Your task to perform on an android device: Go to Yahoo.com Image 0: 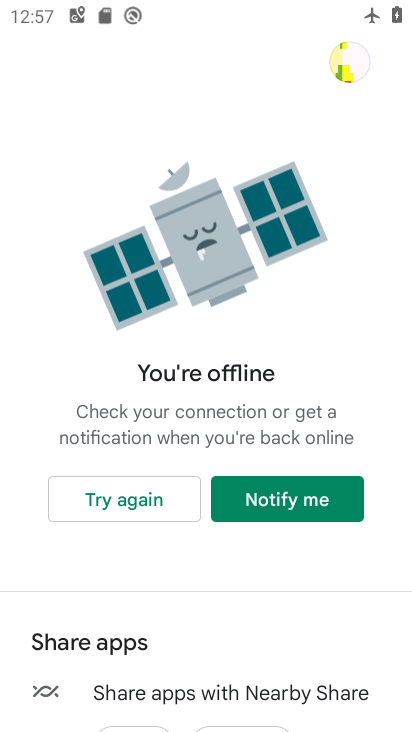
Step 0: press home button
Your task to perform on an android device: Go to Yahoo.com Image 1: 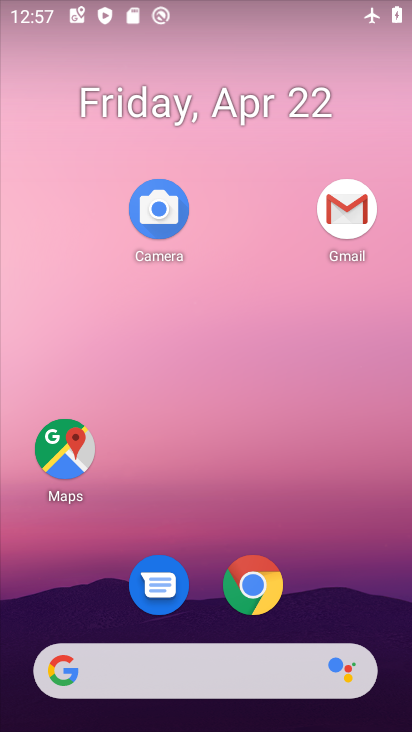
Step 1: click (272, 667)
Your task to perform on an android device: Go to Yahoo.com Image 2: 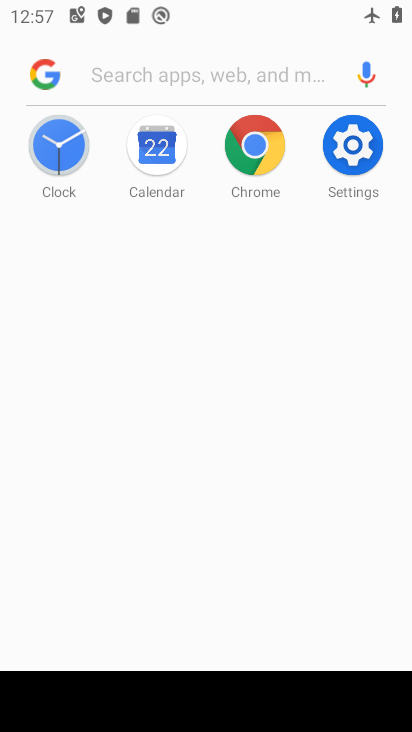
Step 2: type "yahoo.com"
Your task to perform on an android device: Go to Yahoo.com Image 3: 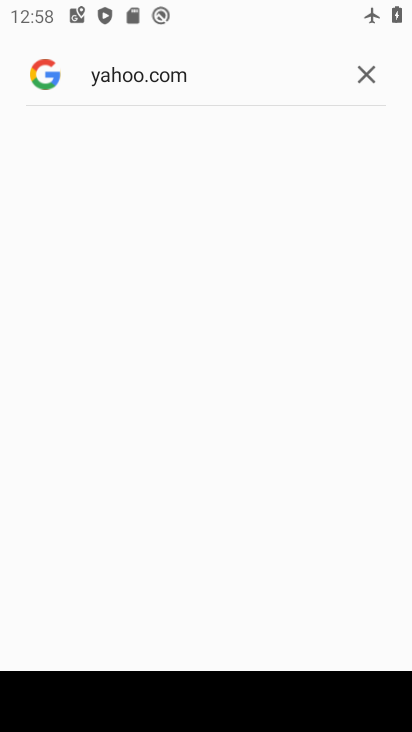
Step 3: task complete